Your task to perform on an android device: check the backup settings in the google photos Image 0: 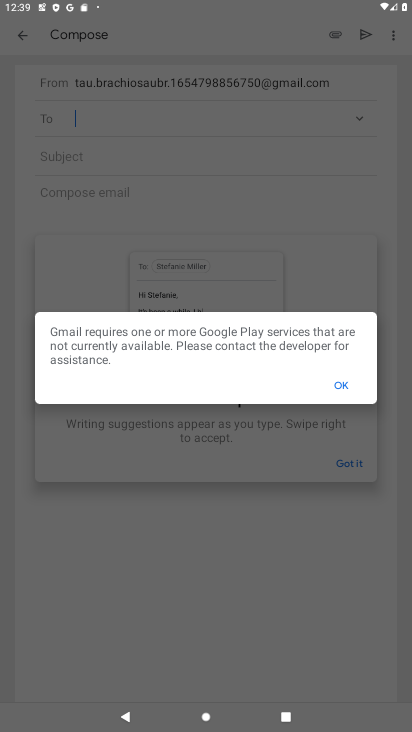
Step 0: press home button
Your task to perform on an android device: check the backup settings in the google photos Image 1: 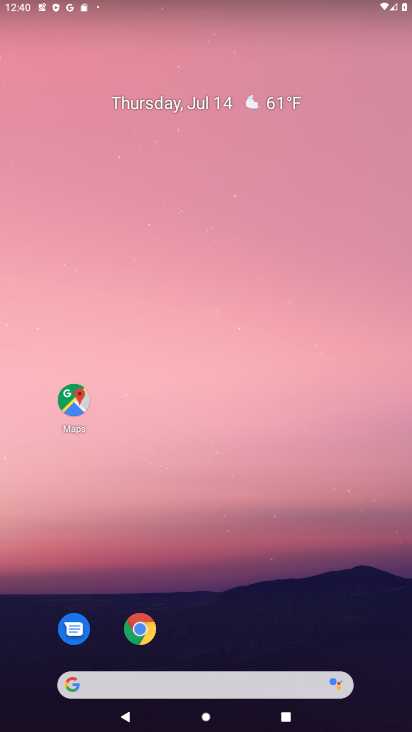
Step 1: drag from (217, 484) to (239, 50)
Your task to perform on an android device: check the backup settings in the google photos Image 2: 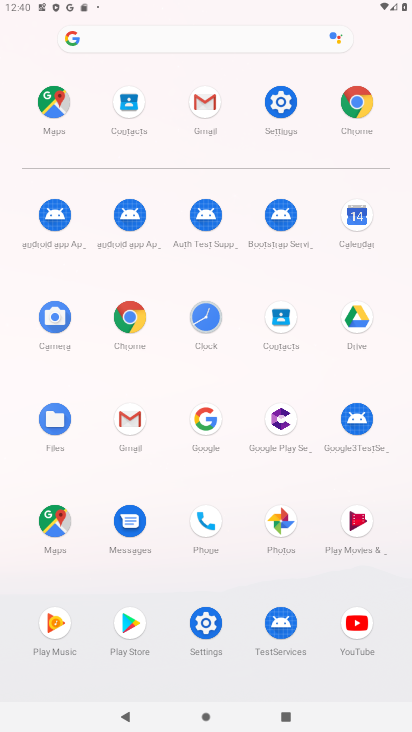
Step 2: click (275, 517)
Your task to perform on an android device: check the backup settings in the google photos Image 3: 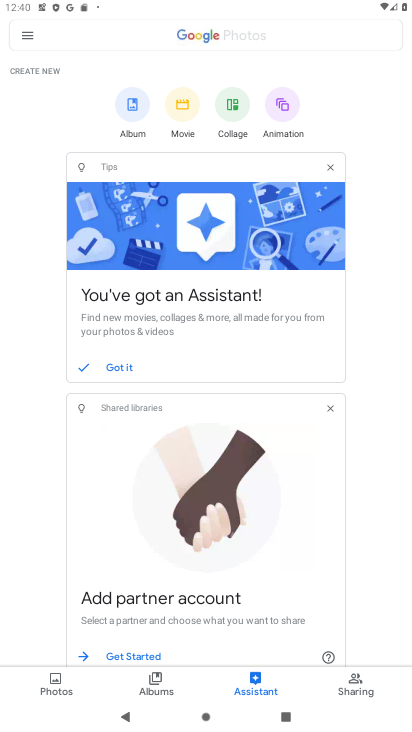
Step 3: click (34, 32)
Your task to perform on an android device: check the backup settings in the google photos Image 4: 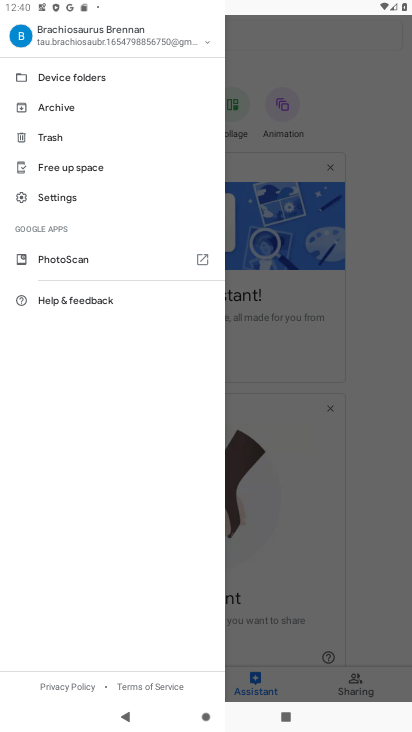
Step 4: click (93, 205)
Your task to perform on an android device: check the backup settings in the google photos Image 5: 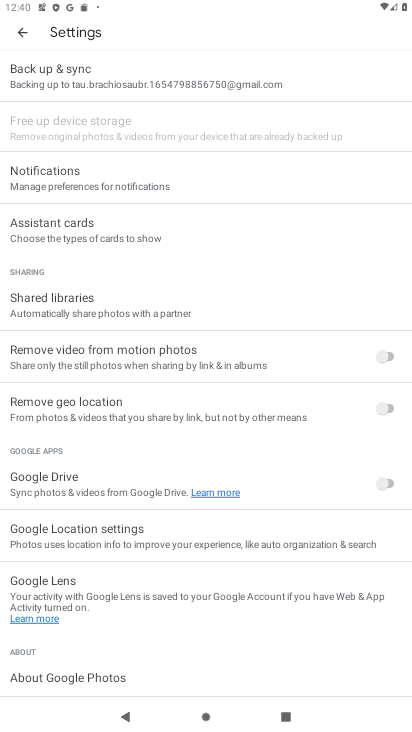
Step 5: click (152, 80)
Your task to perform on an android device: check the backup settings in the google photos Image 6: 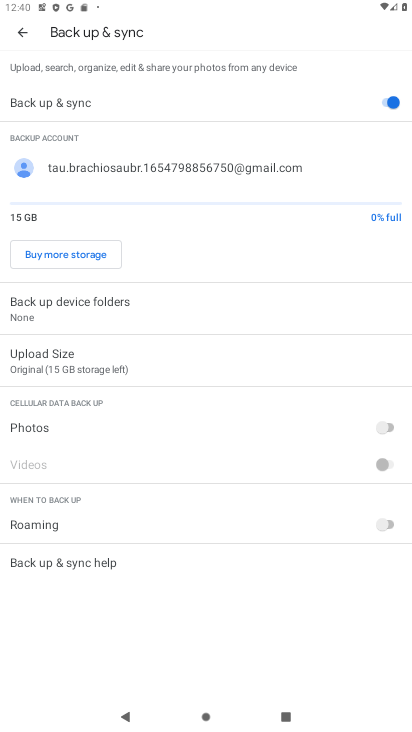
Step 6: task complete